Your task to perform on an android device: turn on sleep mode Image 0: 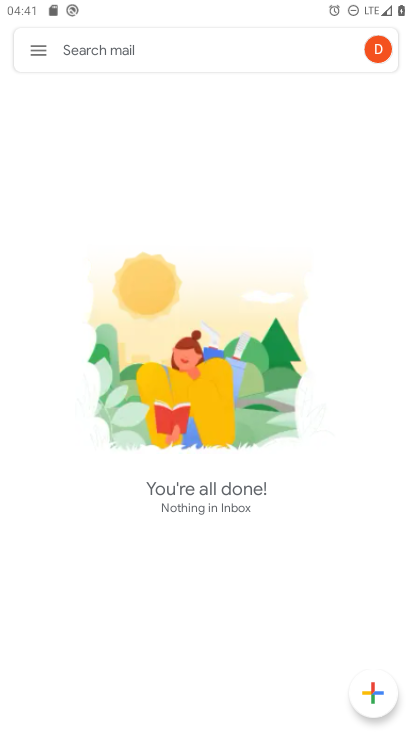
Step 0: press back button
Your task to perform on an android device: turn on sleep mode Image 1: 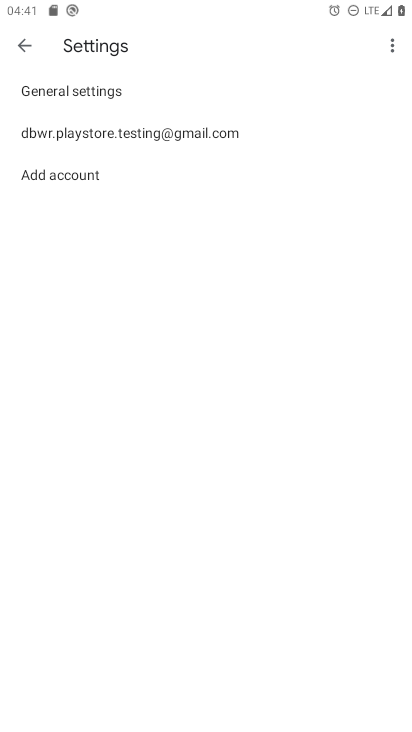
Step 1: press back button
Your task to perform on an android device: turn on sleep mode Image 2: 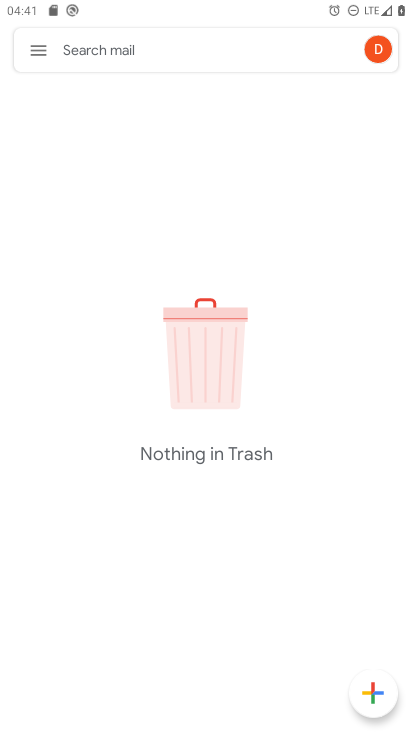
Step 2: press home button
Your task to perform on an android device: turn on sleep mode Image 3: 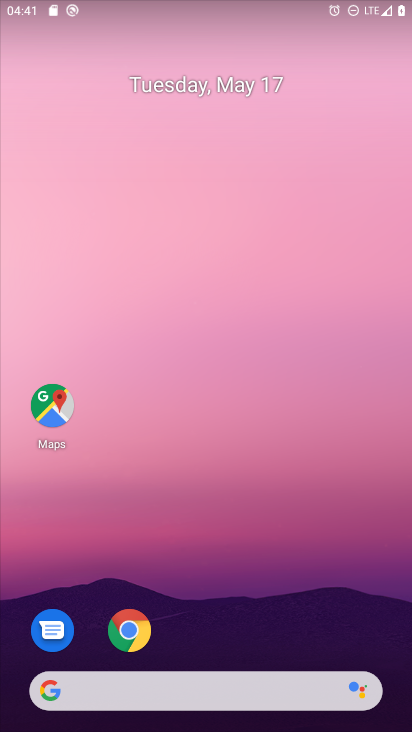
Step 3: drag from (216, 612) to (275, 153)
Your task to perform on an android device: turn on sleep mode Image 4: 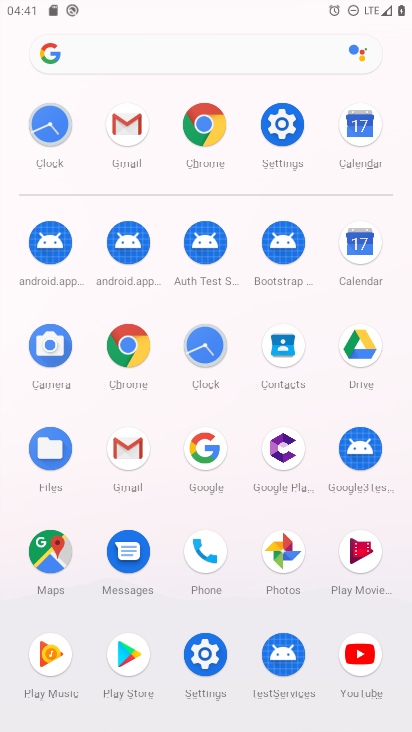
Step 4: click (277, 124)
Your task to perform on an android device: turn on sleep mode Image 5: 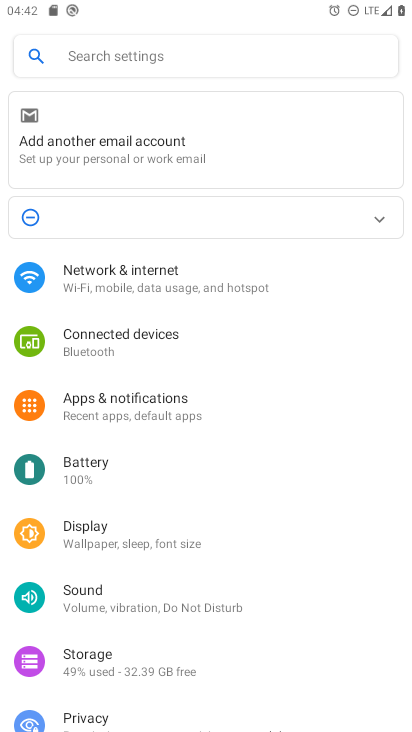
Step 5: click (146, 59)
Your task to perform on an android device: turn on sleep mode Image 6: 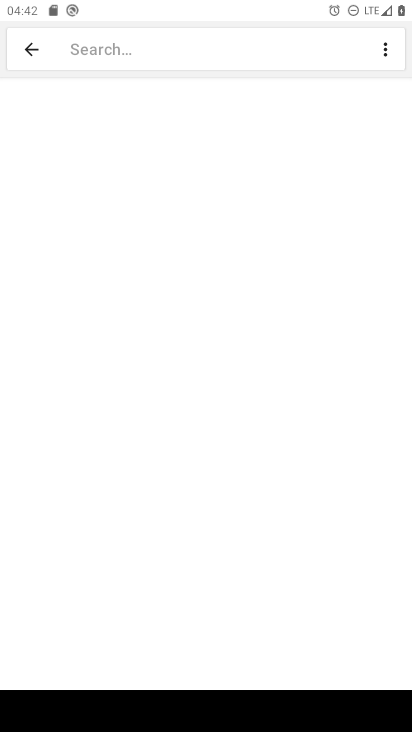
Step 6: type "sleep mode"
Your task to perform on an android device: turn on sleep mode Image 7: 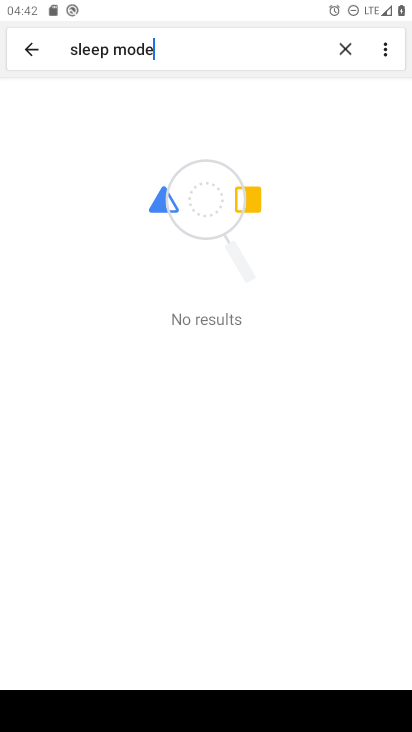
Step 7: task complete